Your task to perform on an android device: What's the weather today? Image 0: 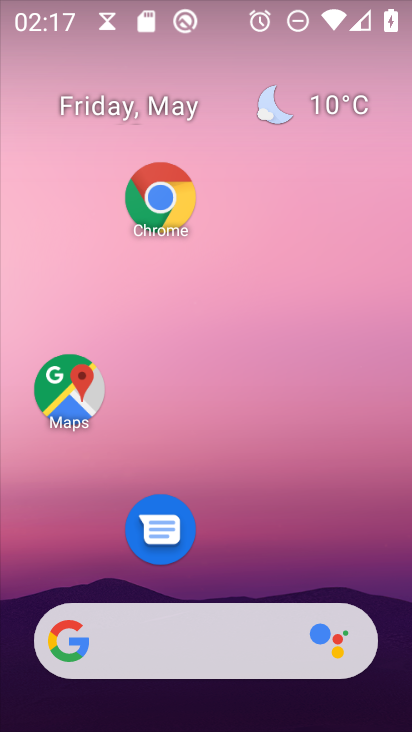
Step 0: drag from (288, 448) to (286, 188)
Your task to perform on an android device: What's the weather today? Image 1: 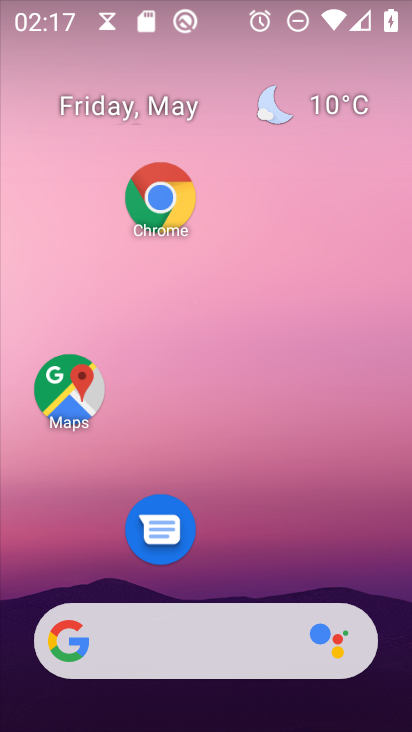
Step 1: click (172, 187)
Your task to perform on an android device: What's the weather today? Image 2: 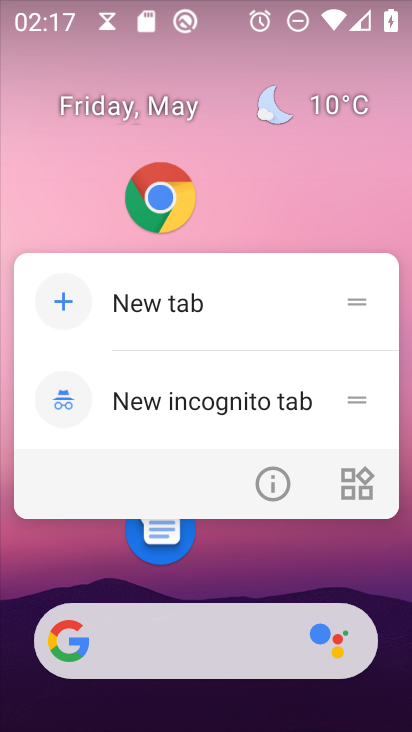
Step 2: click (169, 196)
Your task to perform on an android device: What's the weather today? Image 3: 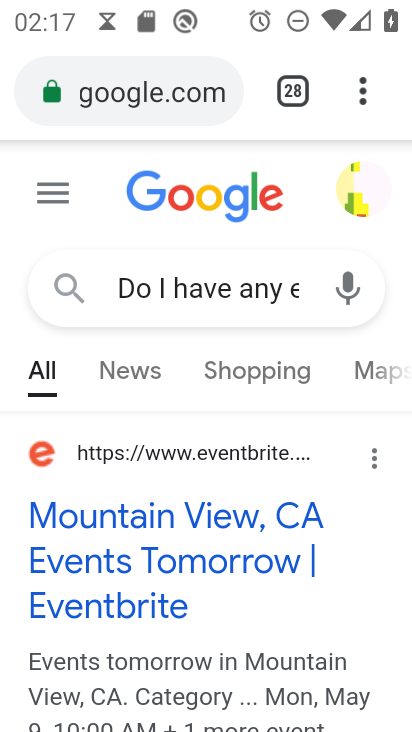
Step 3: click (351, 78)
Your task to perform on an android device: What's the weather today? Image 4: 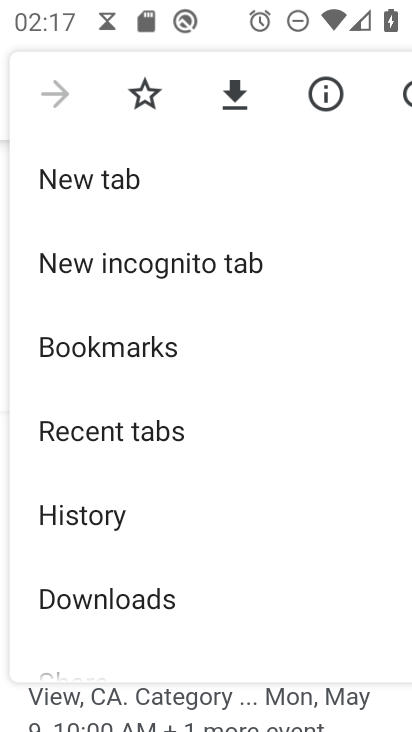
Step 4: click (74, 178)
Your task to perform on an android device: What's the weather today? Image 5: 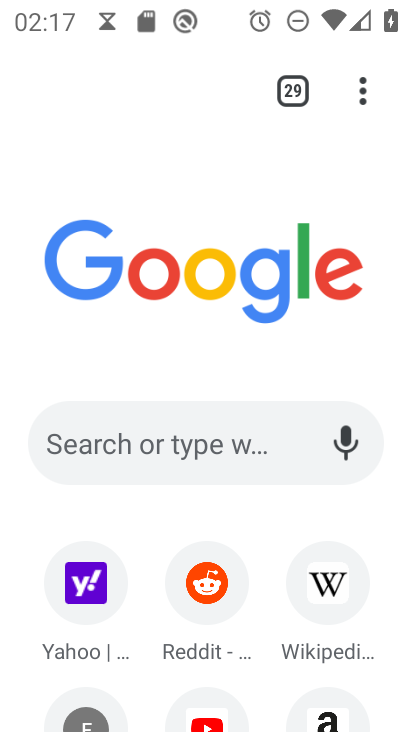
Step 5: click (190, 453)
Your task to perform on an android device: What's the weather today? Image 6: 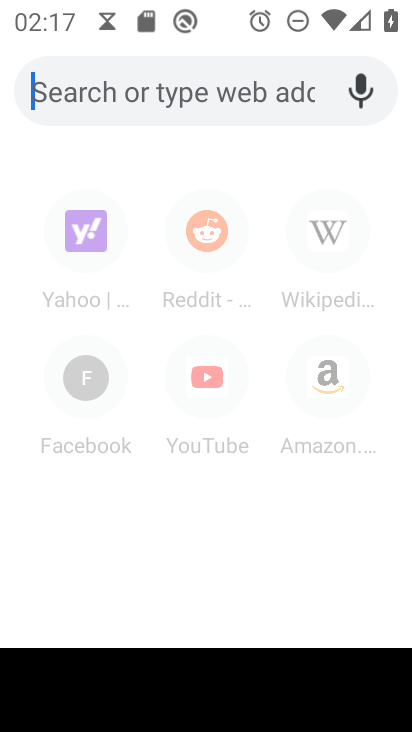
Step 6: type "What's the weather today?"
Your task to perform on an android device: What's the weather today? Image 7: 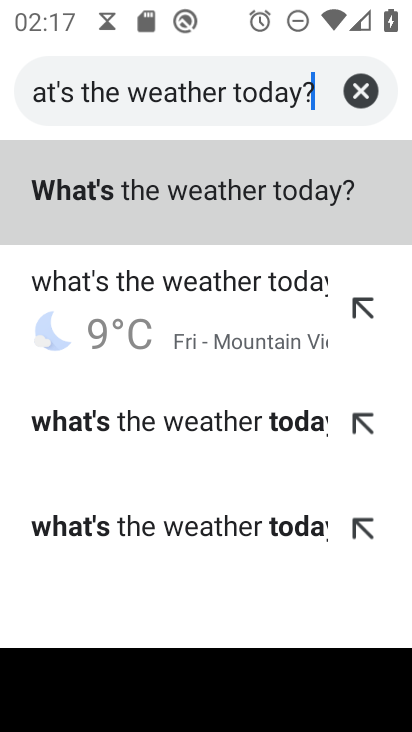
Step 7: click (293, 186)
Your task to perform on an android device: What's the weather today? Image 8: 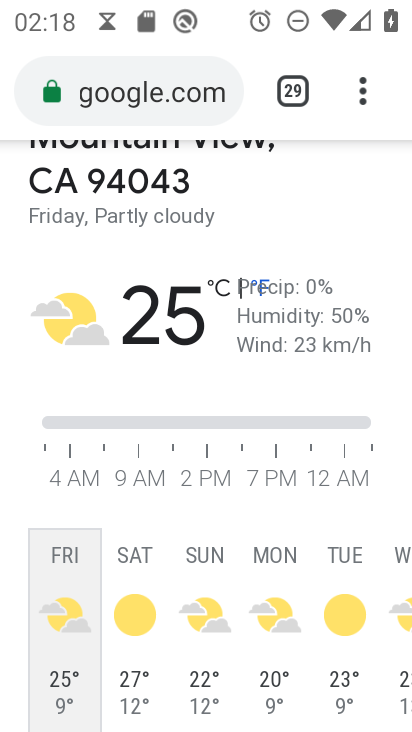
Step 8: task complete